Your task to perform on an android device: turn notification dots on Image 0: 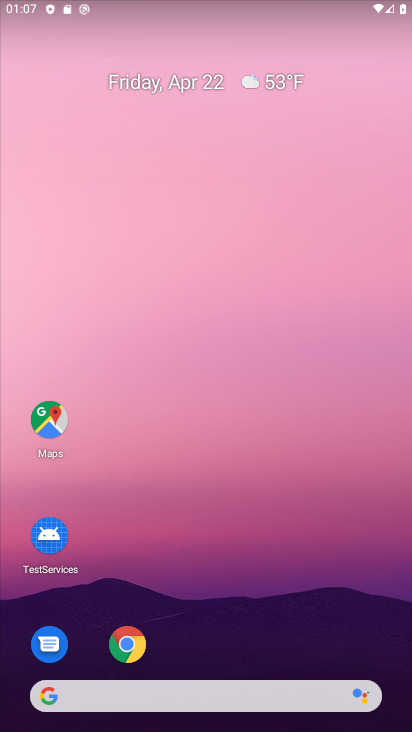
Step 0: drag from (275, 493) to (275, 82)
Your task to perform on an android device: turn notification dots on Image 1: 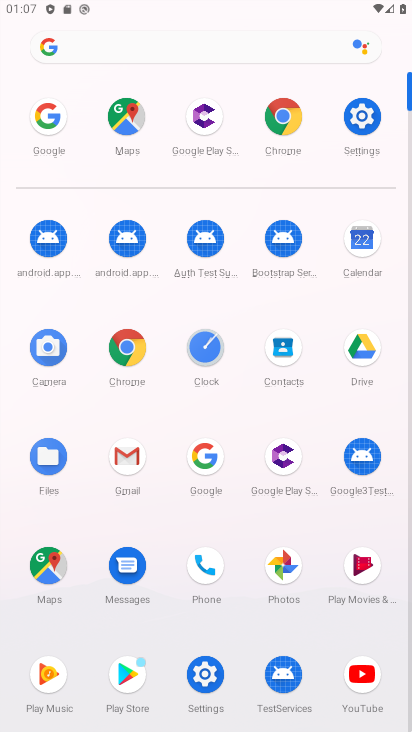
Step 1: click (357, 111)
Your task to perform on an android device: turn notification dots on Image 2: 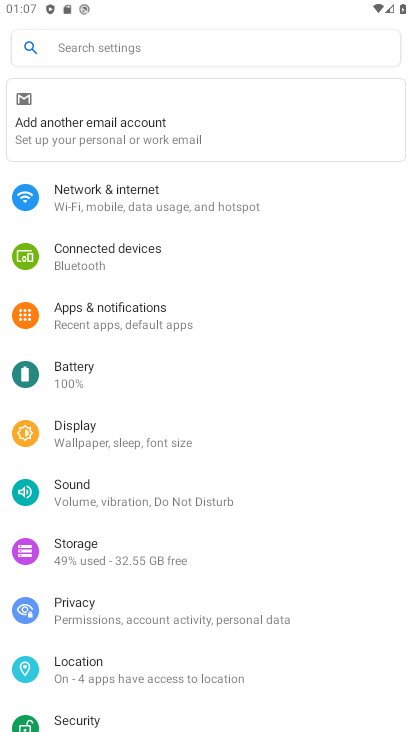
Step 2: click (130, 321)
Your task to perform on an android device: turn notification dots on Image 3: 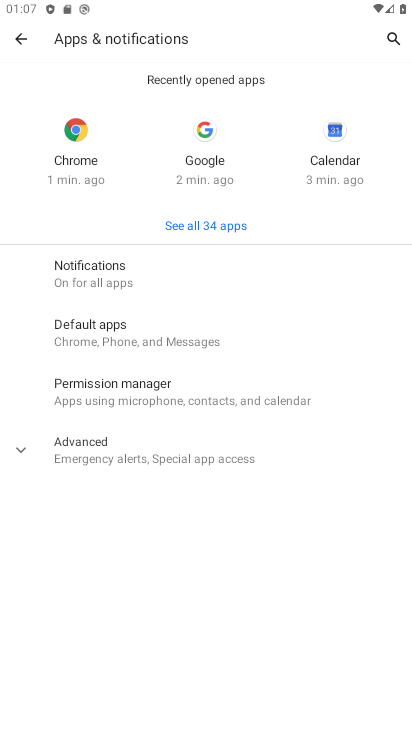
Step 3: click (101, 286)
Your task to perform on an android device: turn notification dots on Image 4: 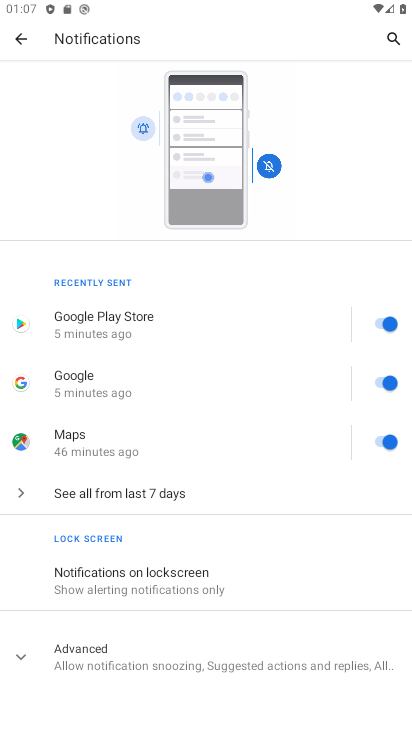
Step 4: drag from (209, 567) to (255, 211)
Your task to perform on an android device: turn notification dots on Image 5: 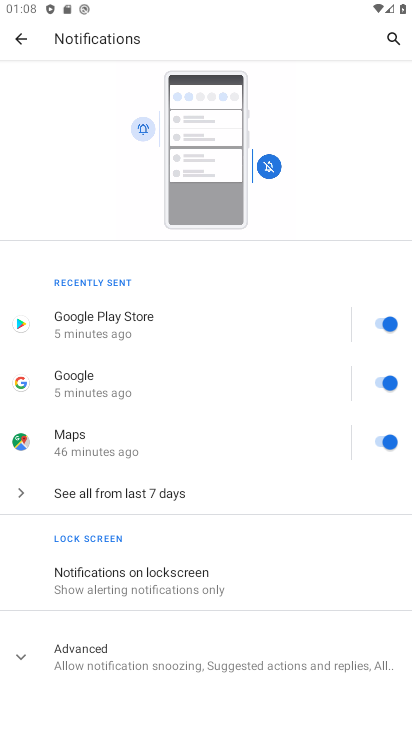
Step 5: drag from (206, 614) to (244, 284)
Your task to perform on an android device: turn notification dots on Image 6: 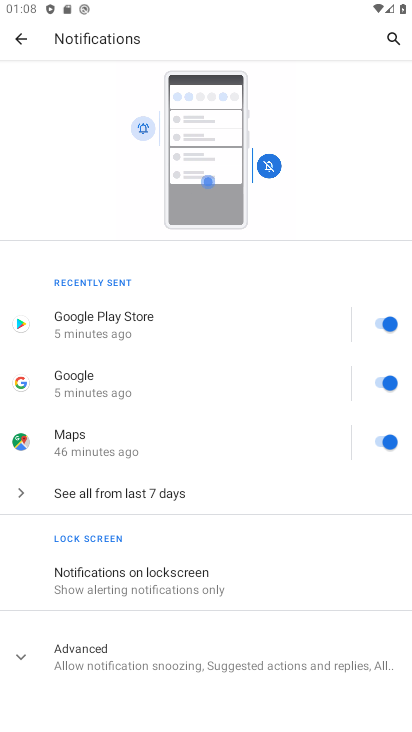
Step 6: click (102, 647)
Your task to perform on an android device: turn notification dots on Image 7: 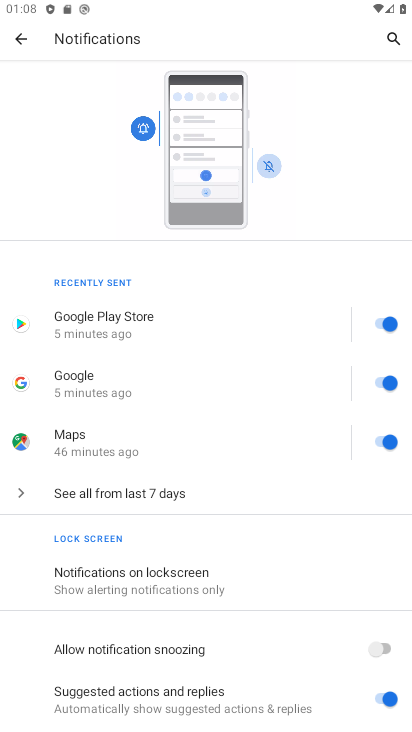
Step 7: task complete